Your task to perform on an android device: turn on the 24-hour format for clock Image 0: 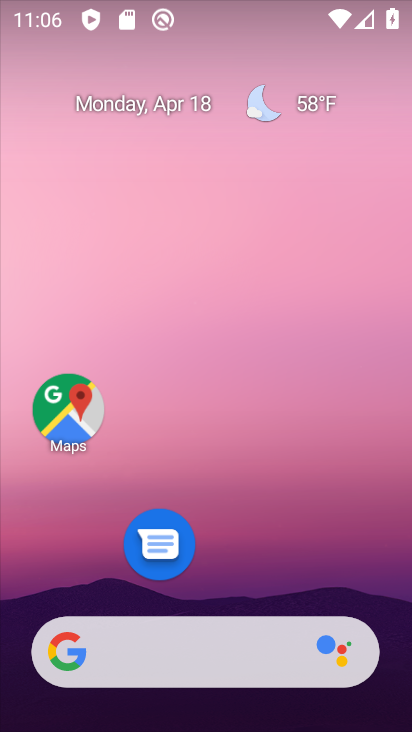
Step 0: drag from (260, 521) to (226, 52)
Your task to perform on an android device: turn on the 24-hour format for clock Image 1: 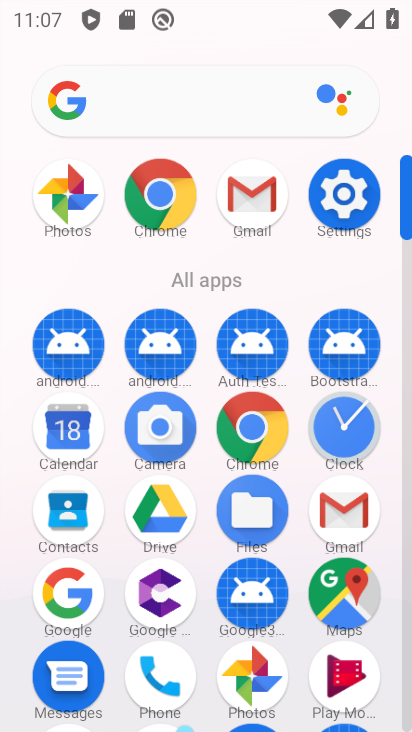
Step 1: click (346, 431)
Your task to perform on an android device: turn on the 24-hour format for clock Image 2: 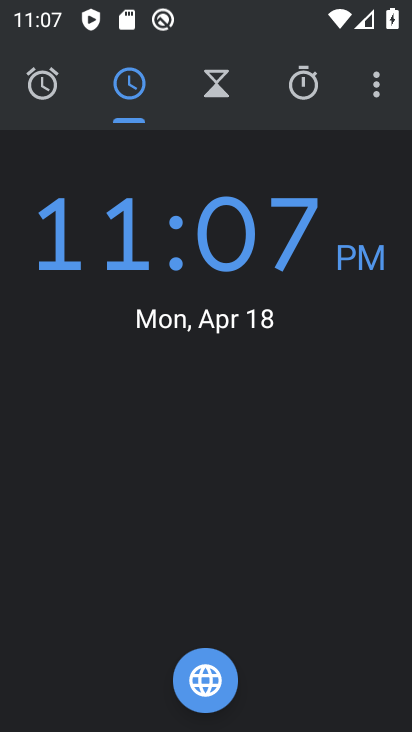
Step 2: click (375, 87)
Your task to perform on an android device: turn on the 24-hour format for clock Image 3: 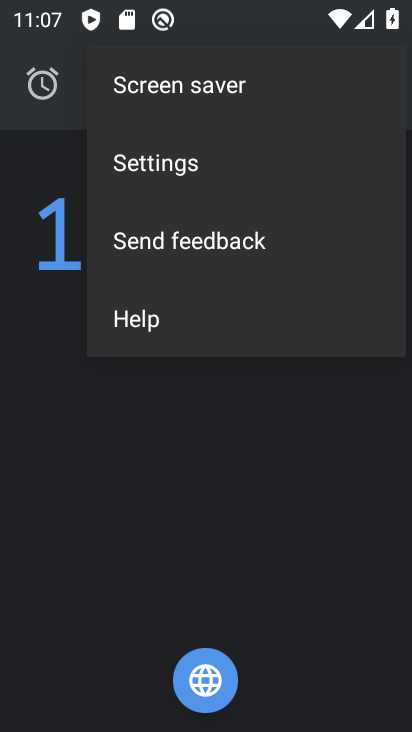
Step 3: click (196, 175)
Your task to perform on an android device: turn on the 24-hour format for clock Image 4: 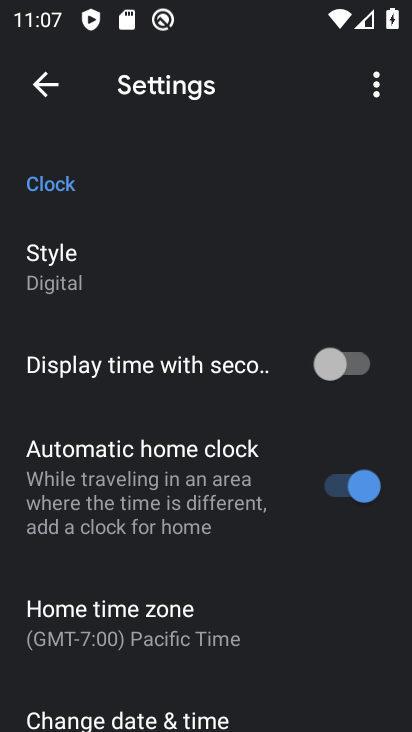
Step 4: drag from (167, 568) to (172, 391)
Your task to perform on an android device: turn on the 24-hour format for clock Image 5: 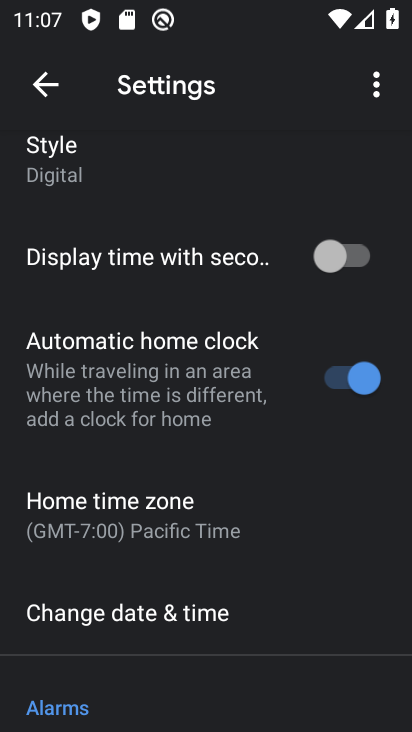
Step 5: click (176, 618)
Your task to perform on an android device: turn on the 24-hour format for clock Image 6: 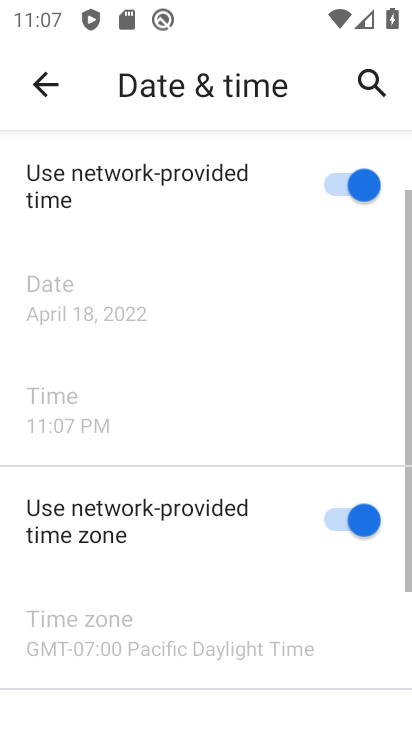
Step 6: drag from (172, 636) to (243, 491)
Your task to perform on an android device: turn on the 24-hour format for clock Image 7: 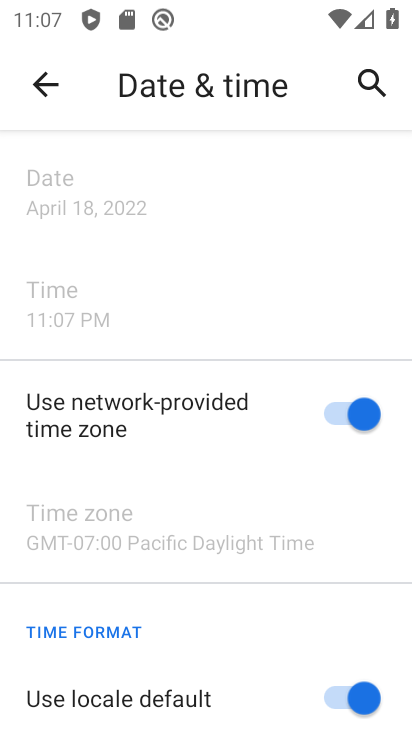
Step 7: drag from (191, 655) to (189, 466)
Your task to perform on an android device: turn on the 24-hour format for clock Image 8: 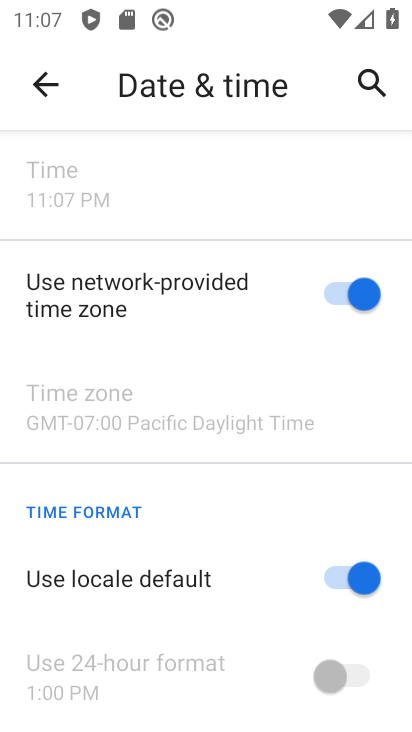
Step 8: click (364, 580)
Your task to perform on an android device: turn on the 24-hour format for clock Image 9: 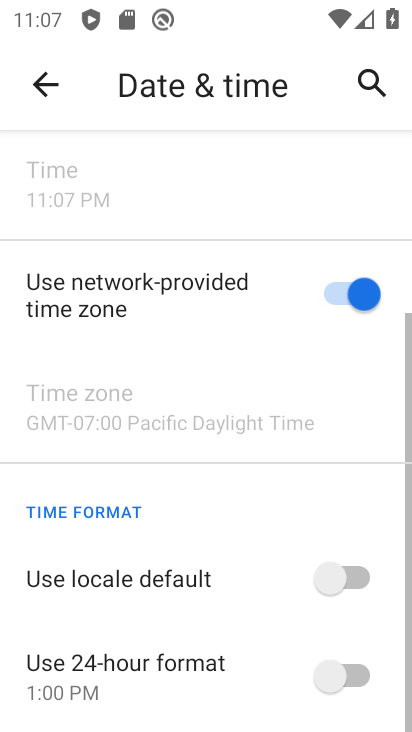
Step 9: click (329, 671)
Your task to perform on an android device: turn on the 24-hour format for clock Image 10: 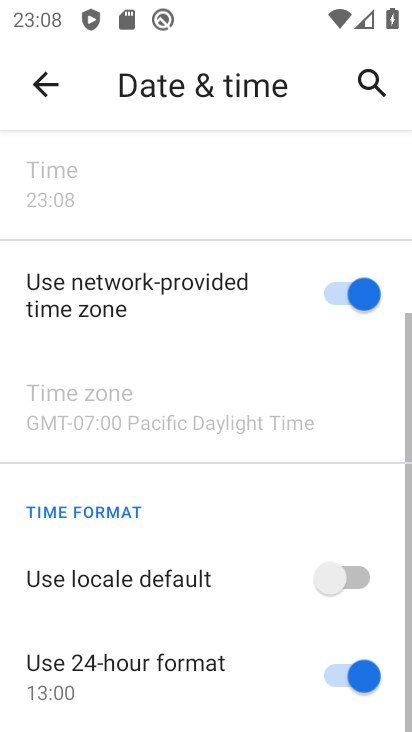
Step 10: task complete